Your task to perform on an android device: What is the news today? Image 0: 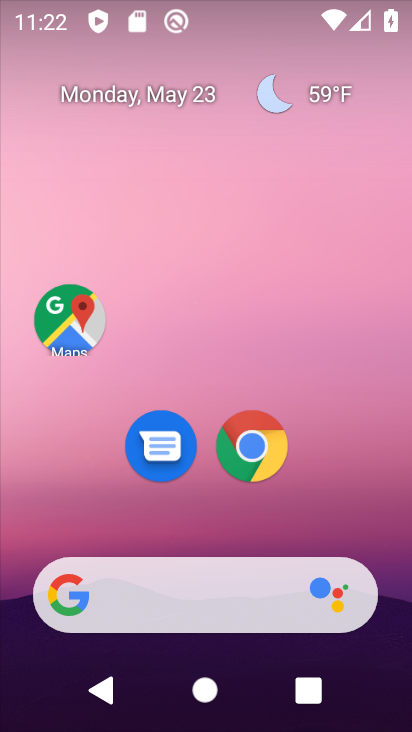
Step 0: drag from (184, 548) to (196, 230)
Your task to perform on an android device: What is the news today? Image 1: 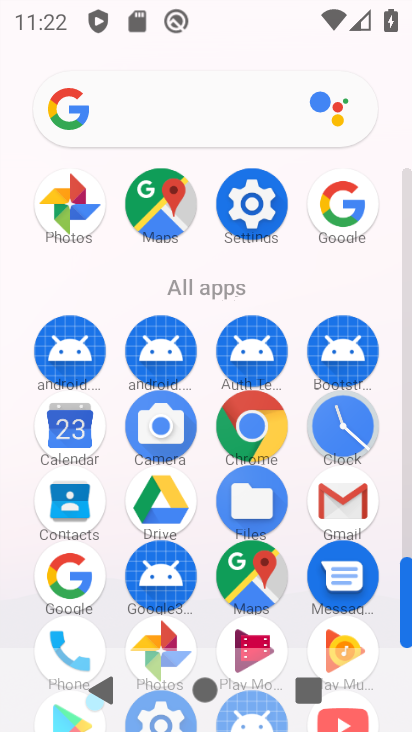
Step 1: click (339, 209)
Your task to perform on an android device: What is the news today? Image 2: 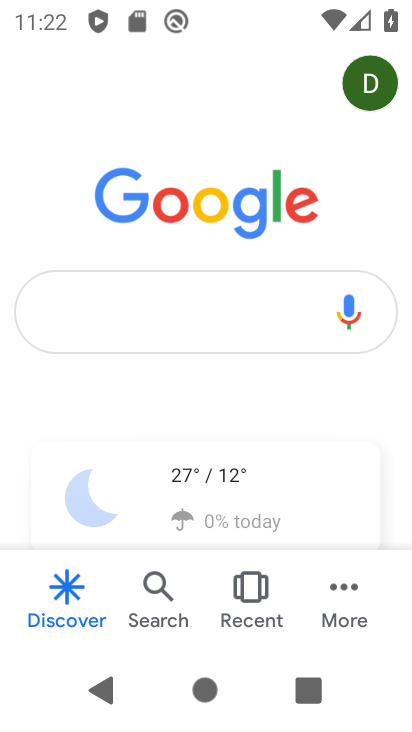
Step 2: click (179, 310)
Your task to perform on an android device: What is the news today? Image 3: 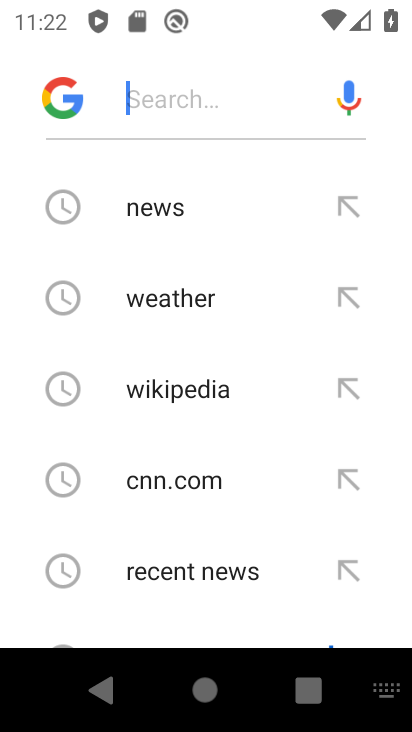
Step 3: click (183, 201)
Your task to perform on an android device: What is the news today? Image 4: 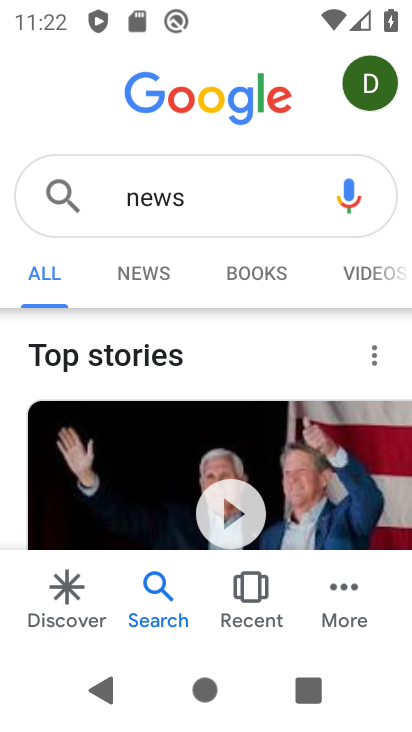
Step 4: task complete